Your task to perform on an android device: Open internet settings Image 0: 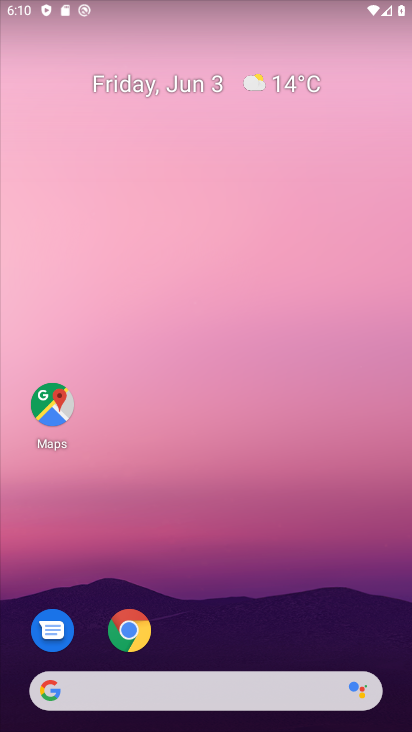
Step 0: click (243, 684)
Your task to perform on an android device: Open internet settings Image 1: 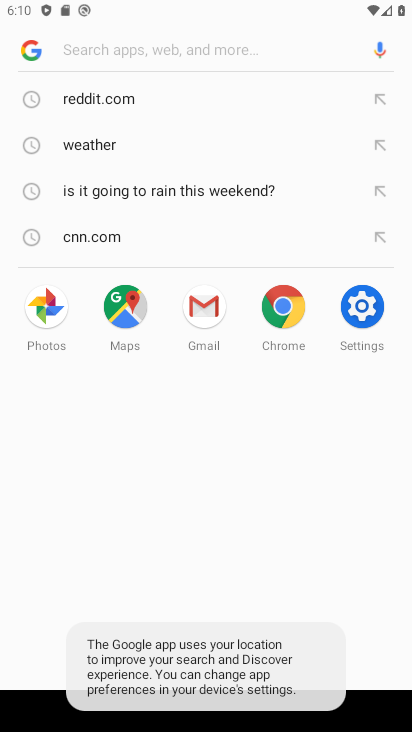
Step 1: task complete